Your task to perform on an android device: open app "eBay: The shopping marketplace" Image 0: 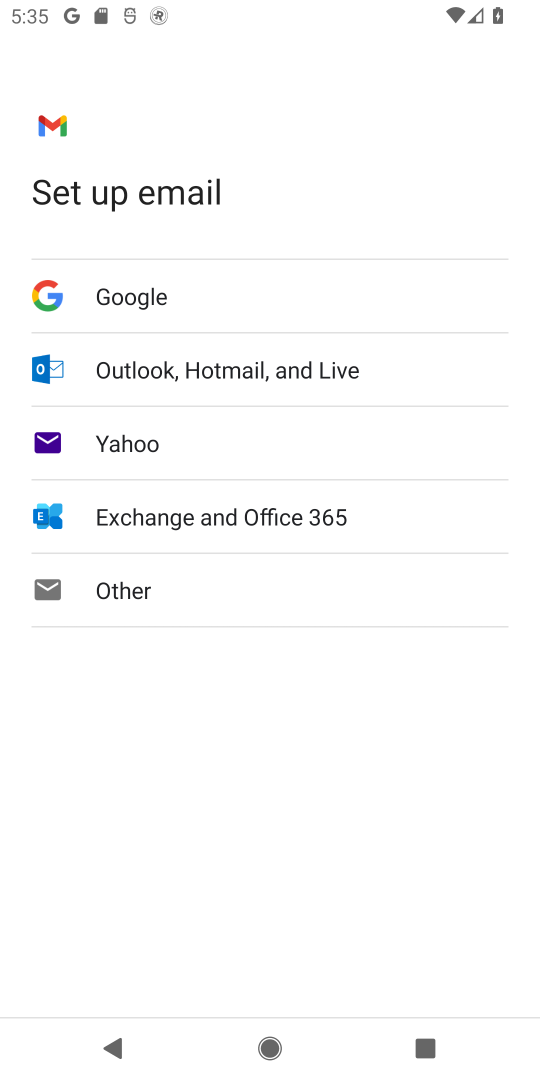
Step 0: press back button
Your task to perform on an android device: open app "eBay: The shopping marketplace" Image 1: 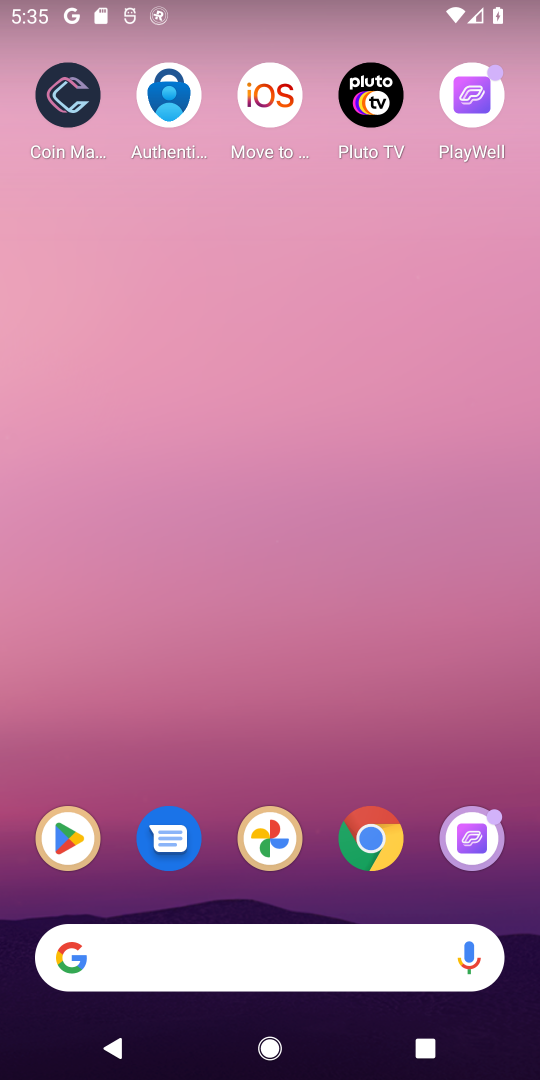
Step 1: click (74, 834)
Your task to perform on an android device: open app "eBay: The shopping marketplace" Image 2: 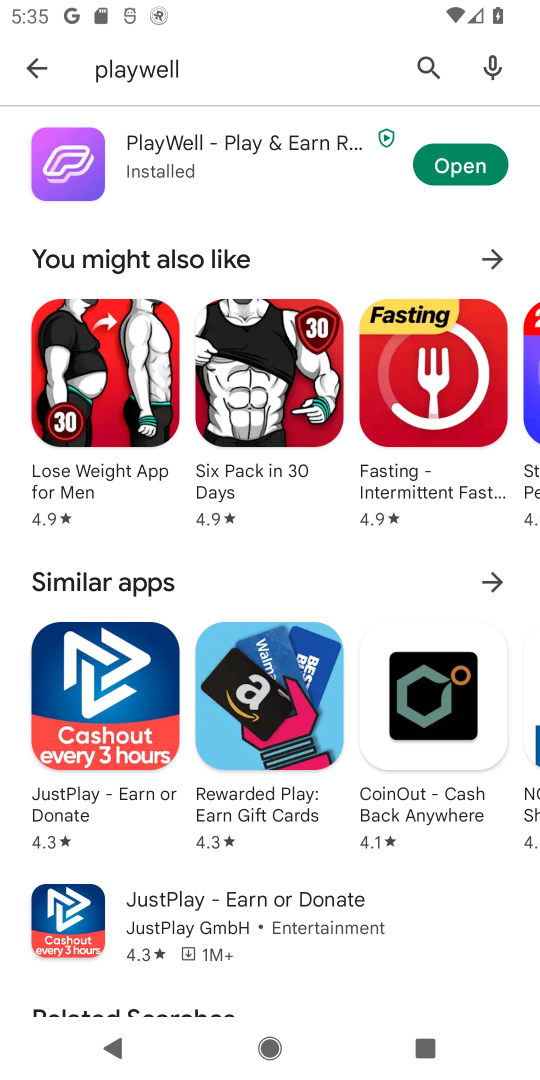
Step 2: click (415, 70)
Your task to perform on an android device: open app "eBay: The shopping marketplace" Image 3: 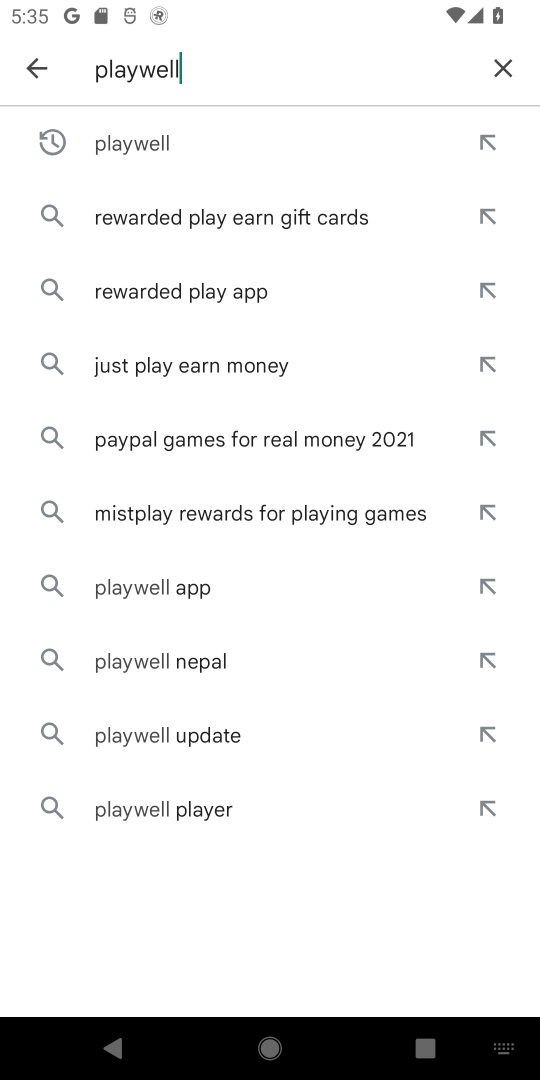
Step 3: click (500, 60)
Your task to perform on an android device: open app "eBay: The shopping marketplace" Image 4: 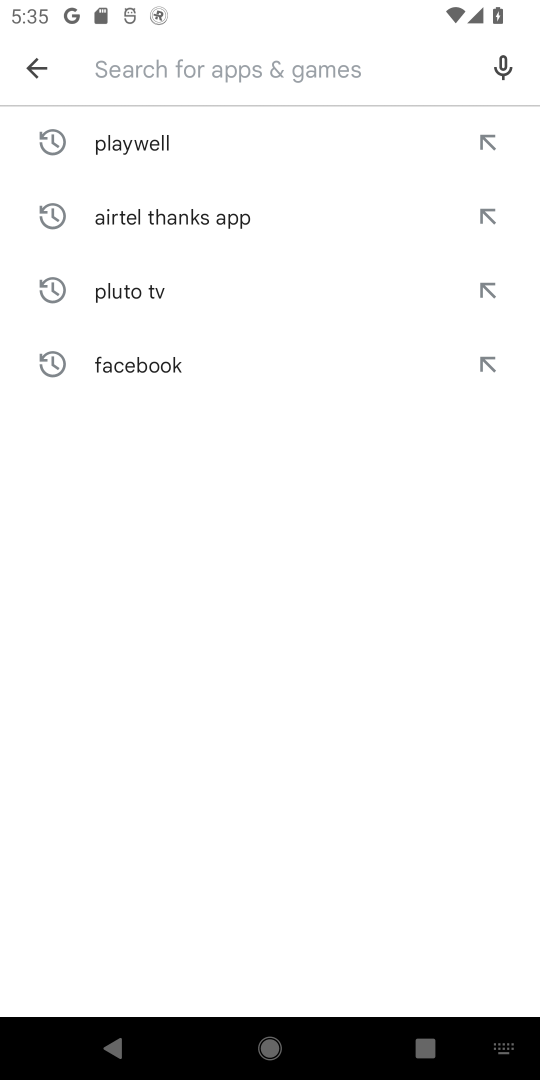
Step 4: click (179, 75)
Your task to perform on an android device: open app "eBay: The shopping marketplace" Image 5: 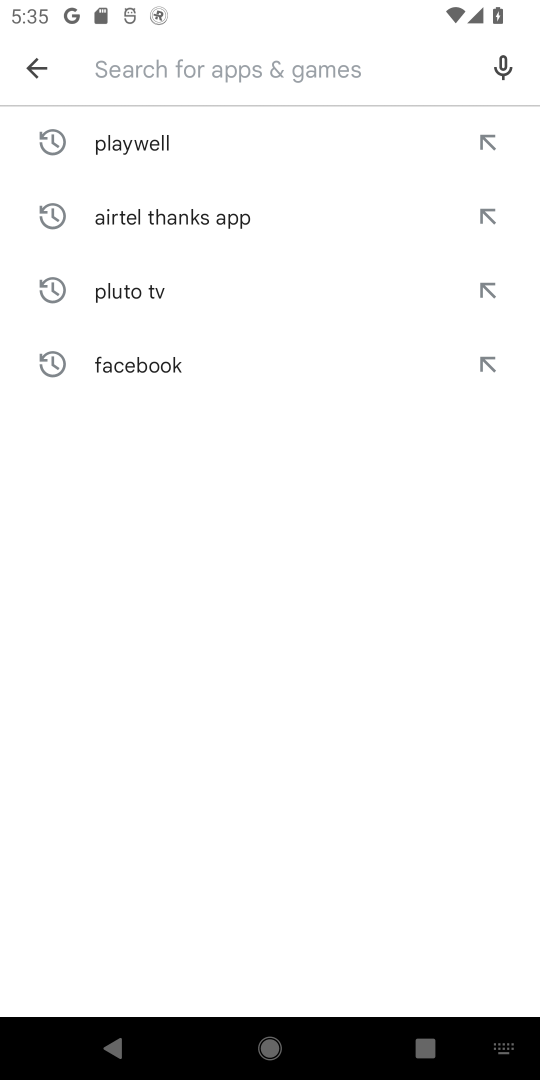
Step 5: type "ebay"
Your task to perform on an android device: open app "eBay: The shopping marketplace" Image 6: 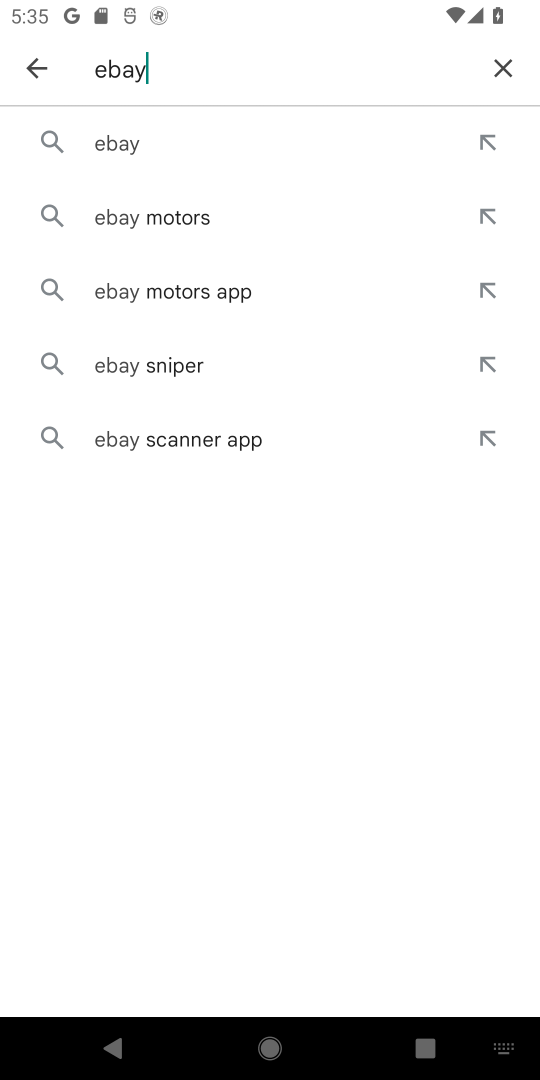
Step 6: click (159, 154)
Your task to perform on an android device: open app "eBay: The shopping marketplace" Image 7: 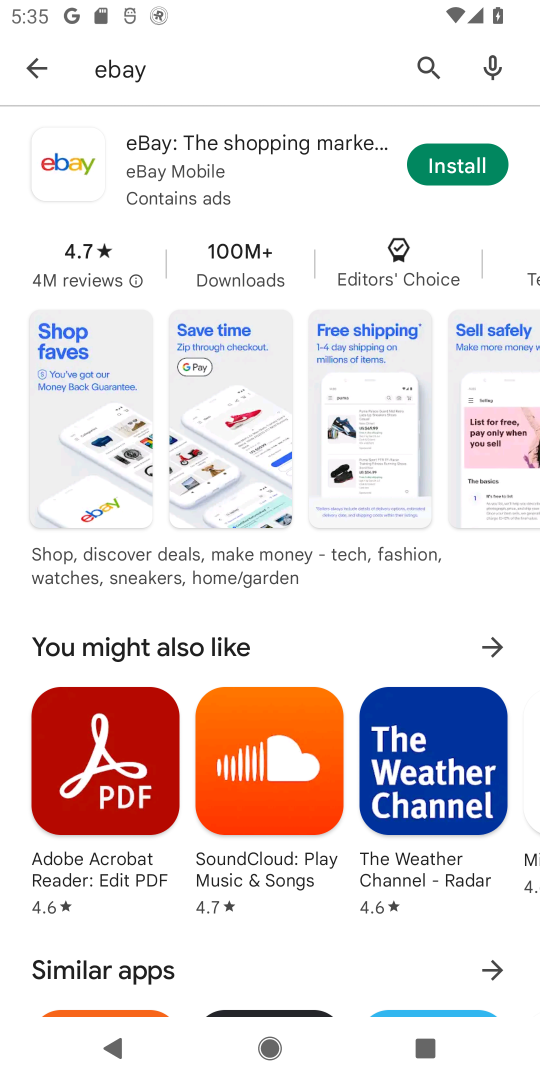
Step 7: task complete